Your task to perform on an android device: Is it going to rain today? Image 0: 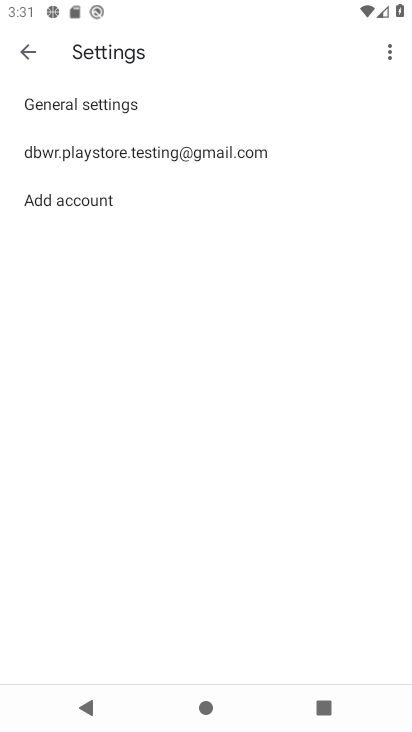
Step 0: drag from (311, 649) to (409, 367)
Your task to perform on an android device: Is it going to rain today? Image 1: 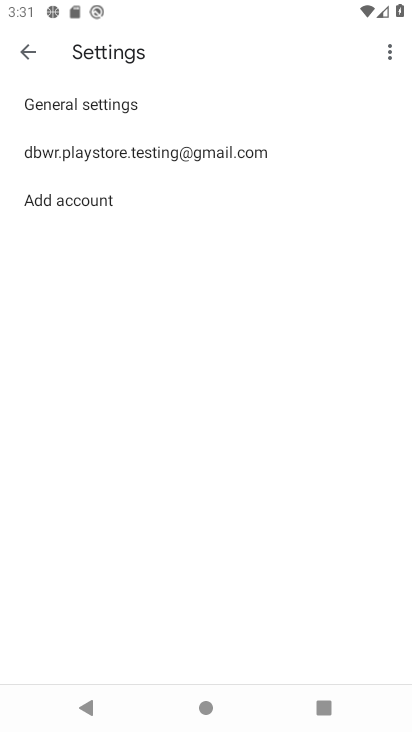
Step 1: press home button
Your task to perform on an android device: Is it going to rain today? Image 2: 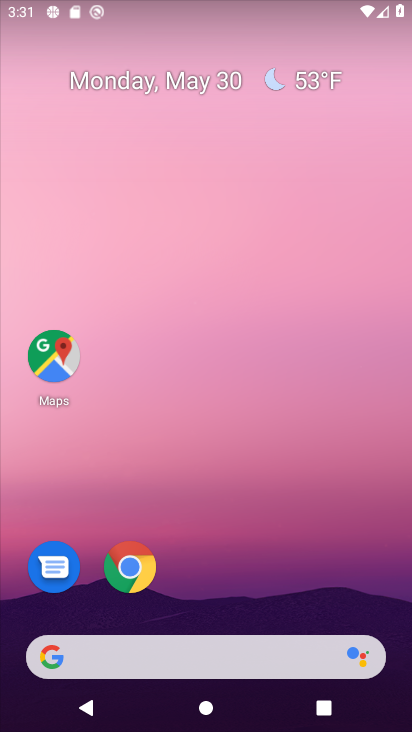
Step 2: drag from (21, 226) to (181, 330)
Your task to perform on an android device: Is it going to rain today? Image 3: 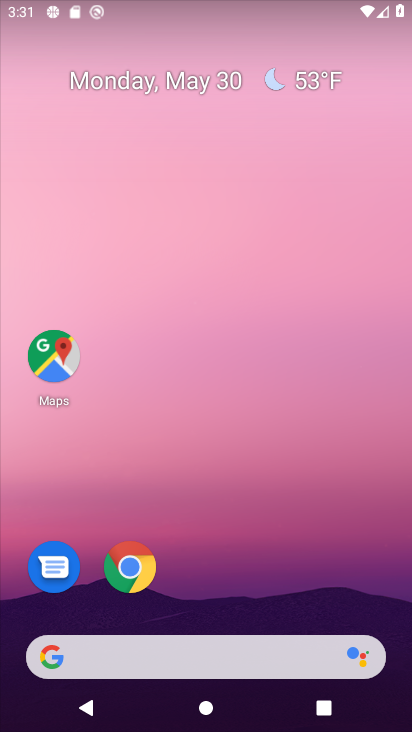
Step 3: drag from (52, 238) to (383, 212)
Your task to perform on an android device: Is it going to rain today? Image 4: 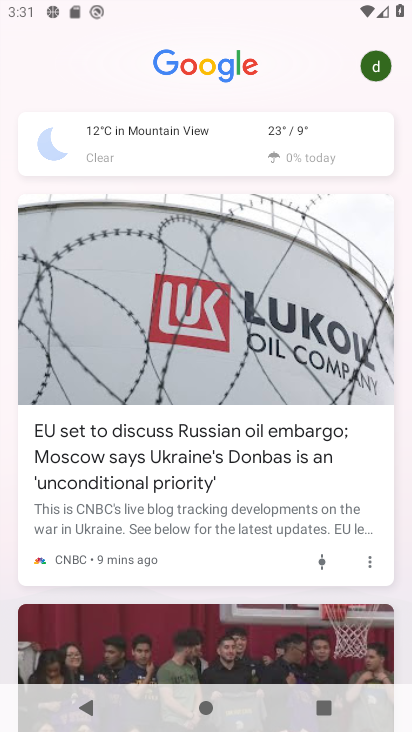
Step 4: click (135, 135)
Your task to perform on an android device: Is it going to rain today? Image 5: 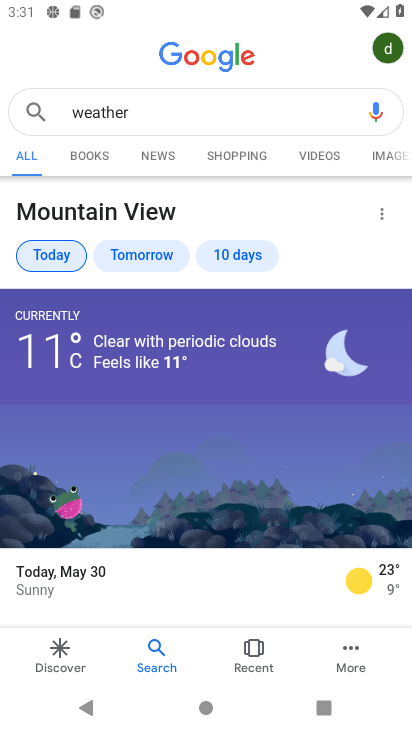
Step 5: task complete